Your task to perform on an android device: Open internet settings Image 0: 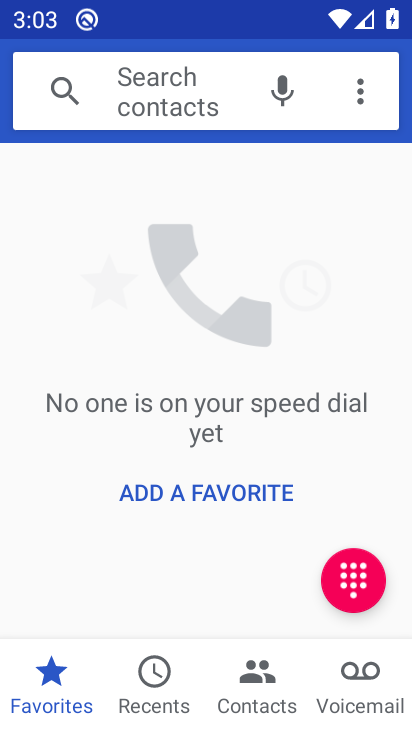
Step 0: press home button
Your task to perform on an android device: Open internet settings Image 1: 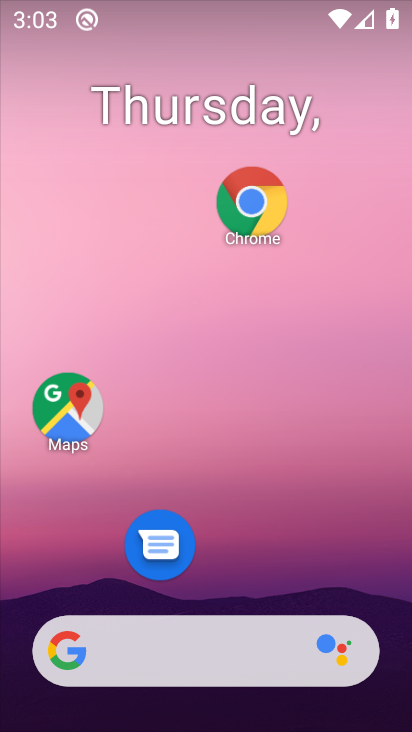
Step 1: drag from (163, 626) to (188, 261)
Your task to perform on an android device: Open internet settings Image 2: 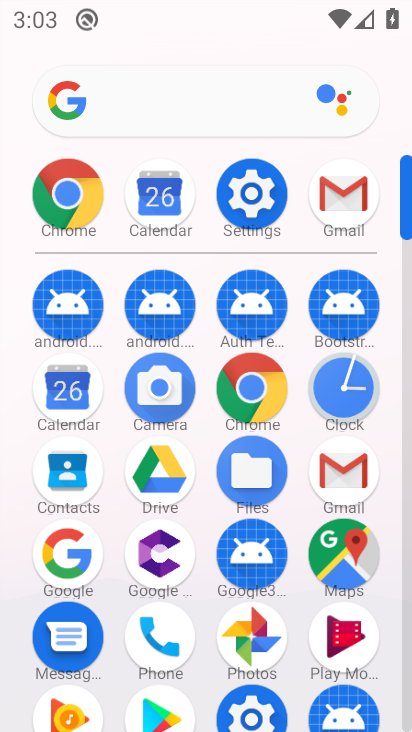
Step 2: click (250, 196)
Your task to perform on an android device: Open internet settings Image 3: 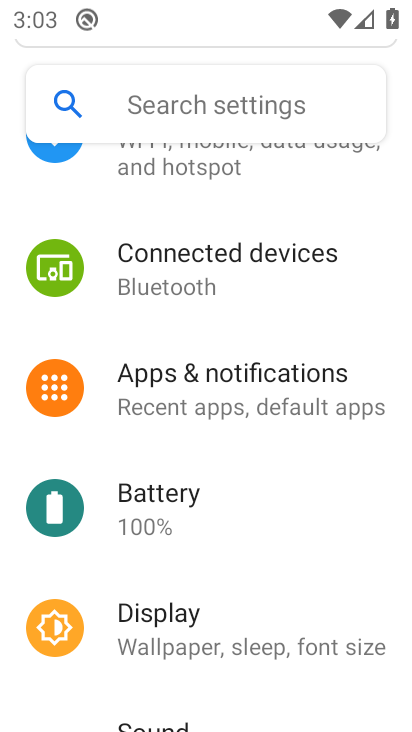
Step 3: drag from (249, 190) to (255, 633)
Your task to perform on an android device: Open internet settings Image 4: 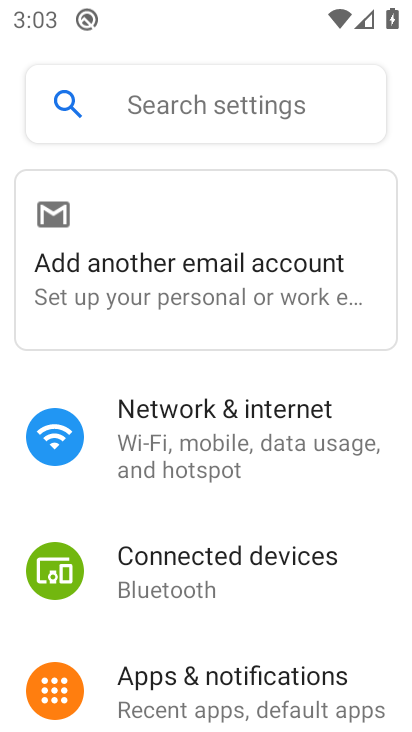
Step 4: click (266, 443)
Your task to perform on an android device: Open internet settings Image 5: 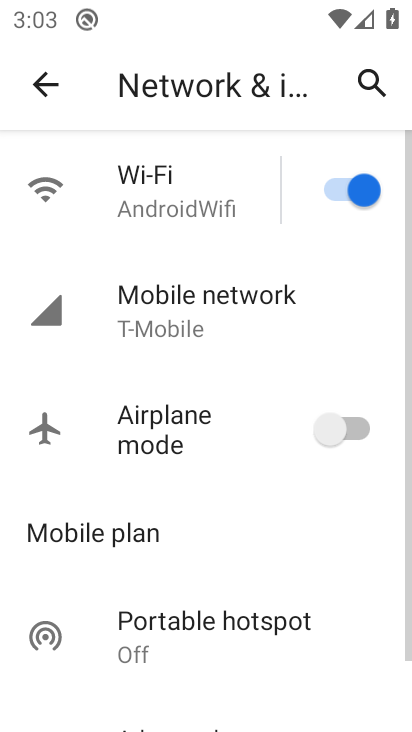
Step 5: drag from (228, 667) to (234, 302)
Your task to perform on an android device: Open internet settings Image 6: 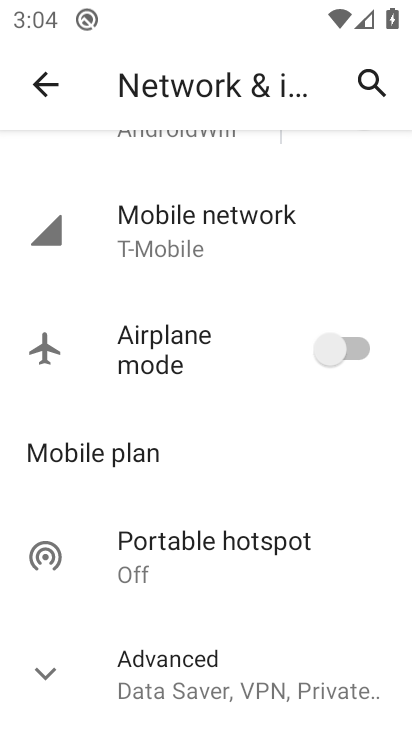
Step 6: click (220, 214)
Your task to perform on an android device: Open internet settings Image 7: 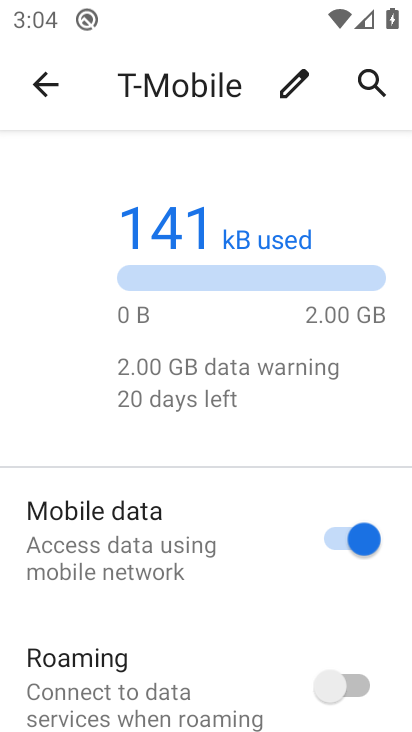
Step 7: task complete